Your task to perform on an android device: Open Google Image 0: 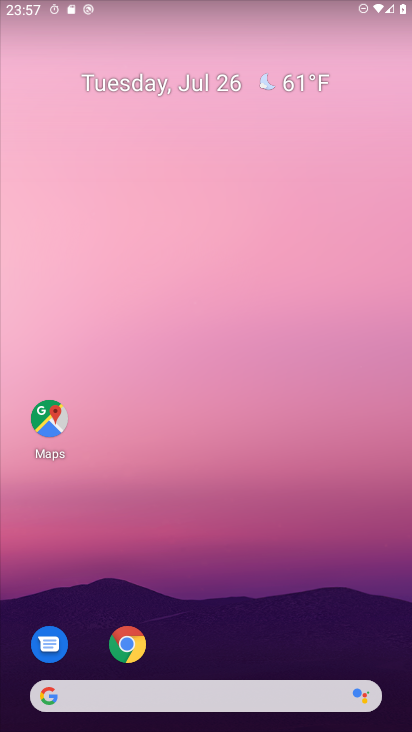
Step 0: drag from (269, 655) to (275, 3)
Your task to perform on an android device: Open Google Image 1: 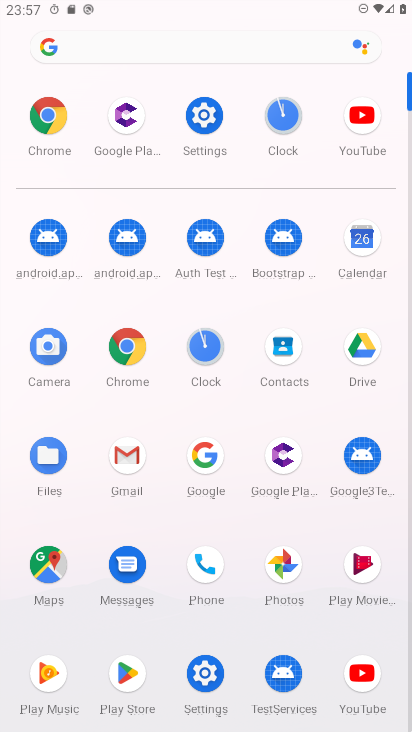
Step 1: click (205, 452)
Your task to perform on an android device: Open Google Image 2: 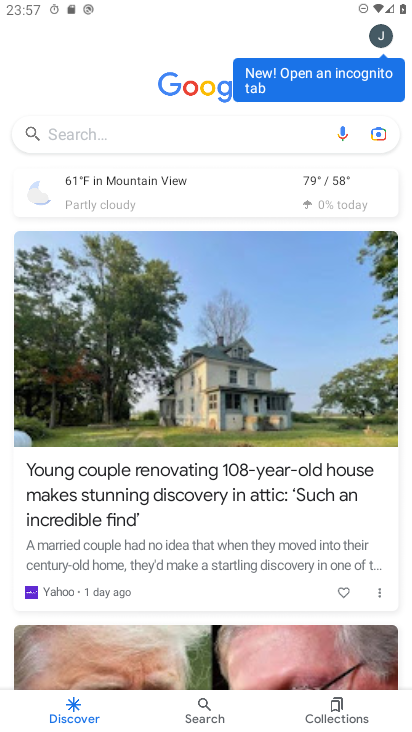
Step 2: task complete